Your task to perform on an android device: Open Android settings Image 0: 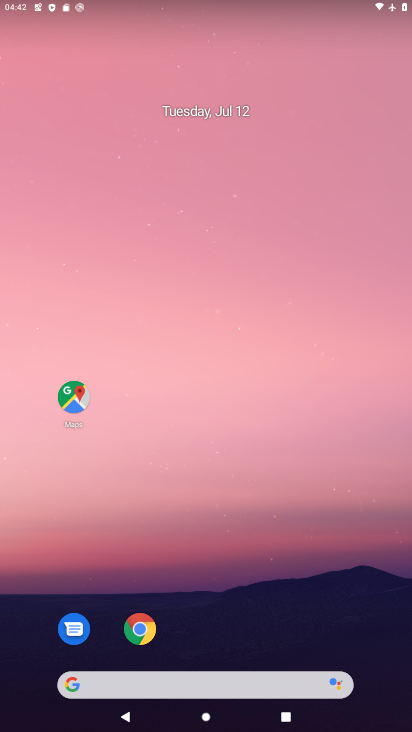
Step 0: drag from (291, 536) to (255, 45)
Your task to perform on an android device: Open Android settings Image 1: 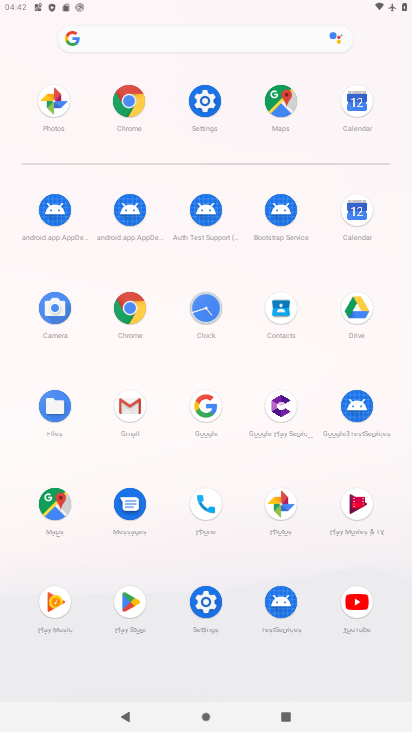
Step 1: click (220, 78)
Your task to perform on an android device: Open Android settings Image 2: 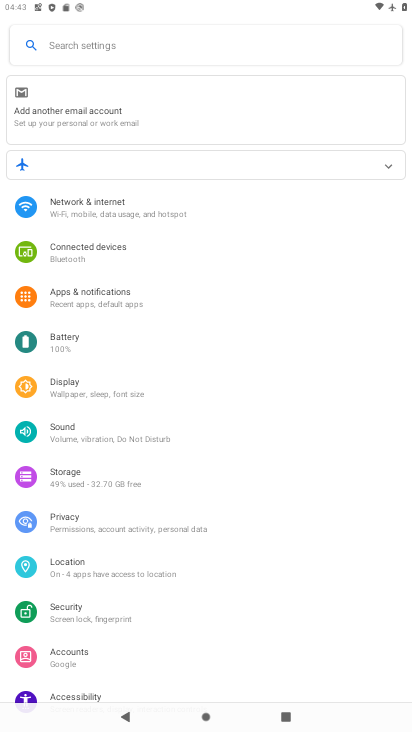
Step 2: task complete